Your task to perform on an android device: turn off improve location accuracy Image 0: 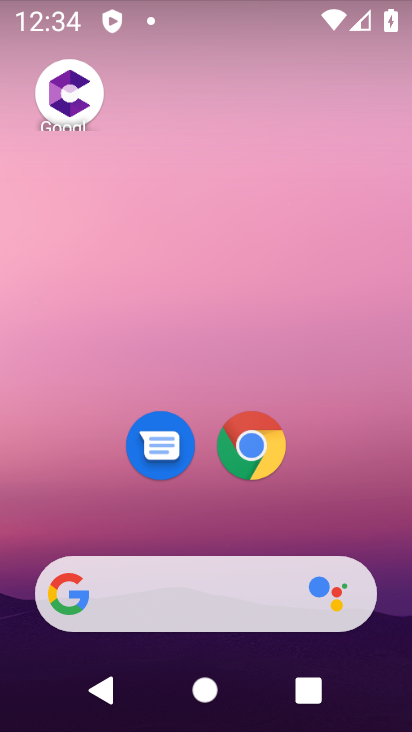
Step 0: drag from (396, 604) to (364, 215)
Your task to perform on an android device: turn off improve location accuracy Image 1: 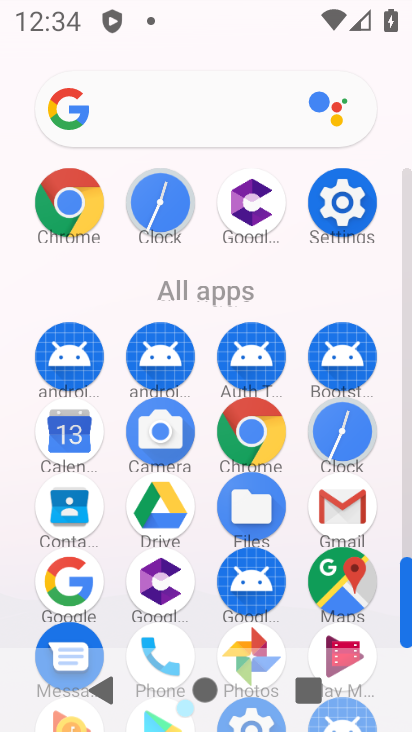
Step 1: click (407, 537)
Your task to perform on an android device: turn off improve location accuracy Image 2: 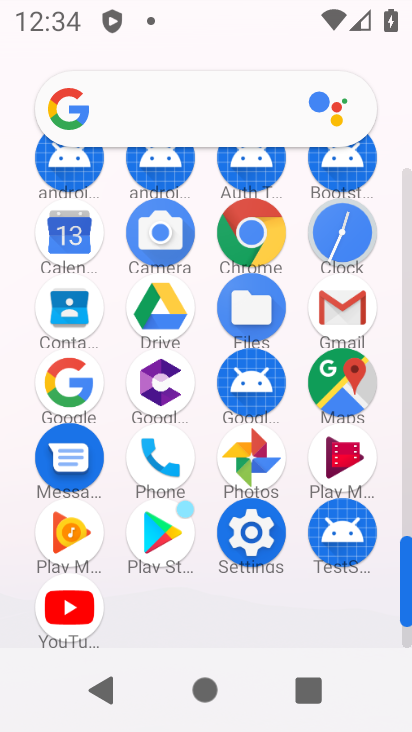
Step 2: click (249, 530)
Your task to perform on an android device: turn off improve location accuracy Image 3: 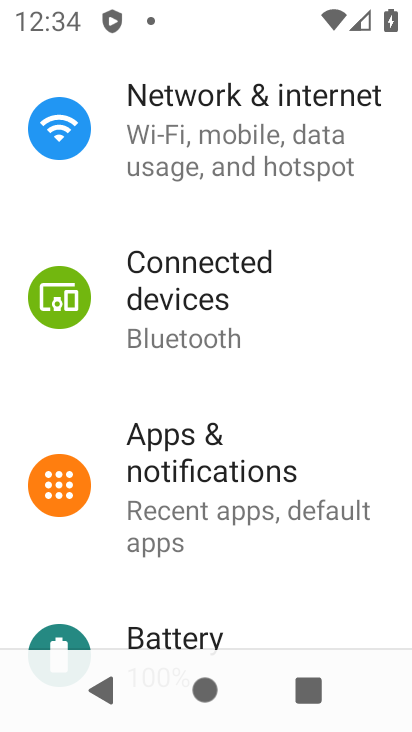
Step 3: drag from (365, 572) to (351, 434)
Your task to perform on an android device: turn off improve location accuracy Image 4: 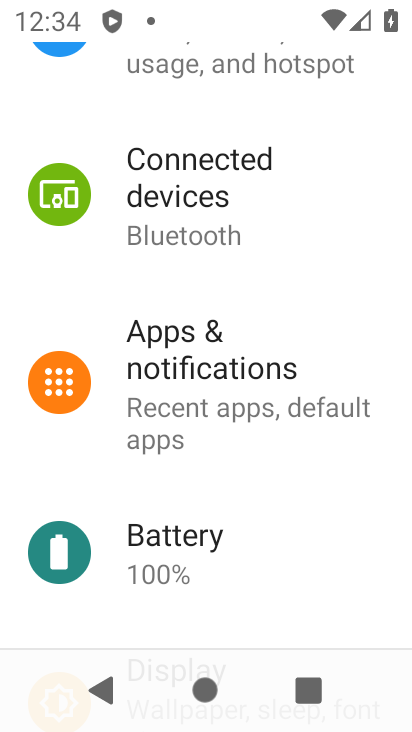
Step 4: drag from (305, 524) to (350, 137)
Your task to perform on an android device: turn off improve location accuracy Image 5: 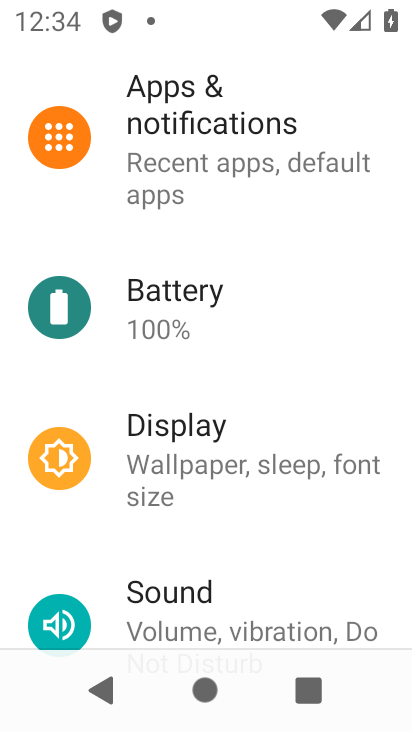
Step 5: drag from (356, 541) to (370, 119)
Your task to perform on an android device: turn off improve location accuracy Image 6: 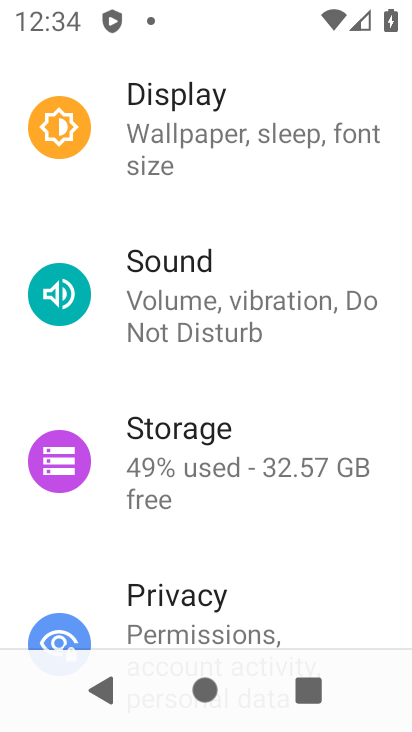
Step 6: drag from (360, 569) to (343, 118)
Your task to perform on an android device: turn off improve location accuracy Image 7: 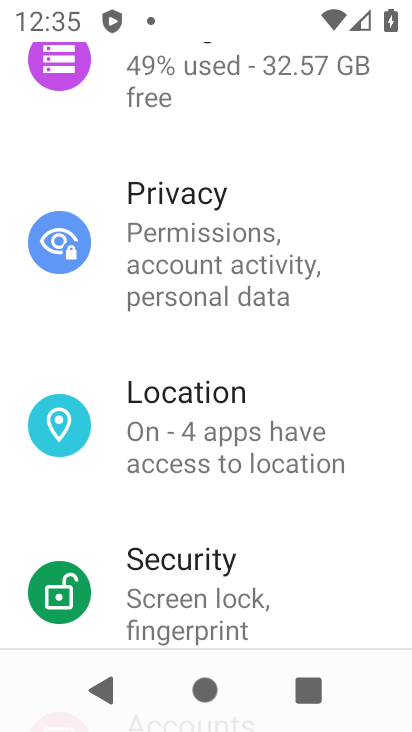
Step 7: click (162, 418)
Your task to perform on an android device: turn off improve location accuracy Image 8: 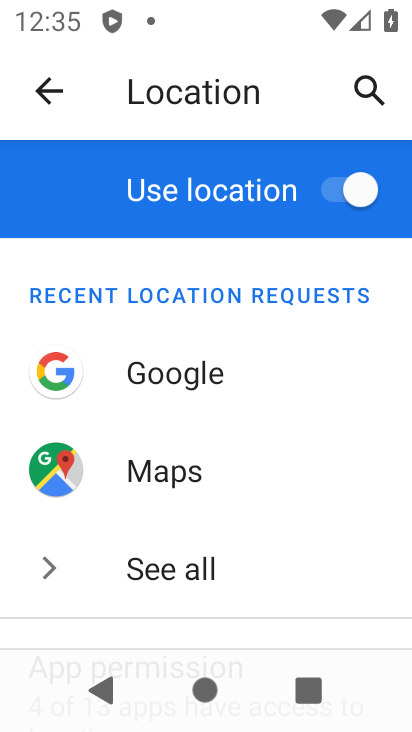
Step 8: drag from (226, 632) to (228, 229)
Your task to perform on an android device: turn off improve location accuracy Image 9: 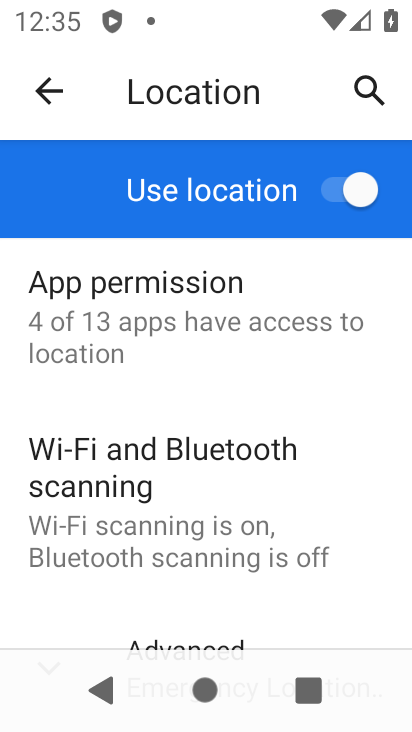
Step 9: drag from (232, 612) to (255, 275)
Your task to perform on an android device: turn off improve location accuracy Image 10: 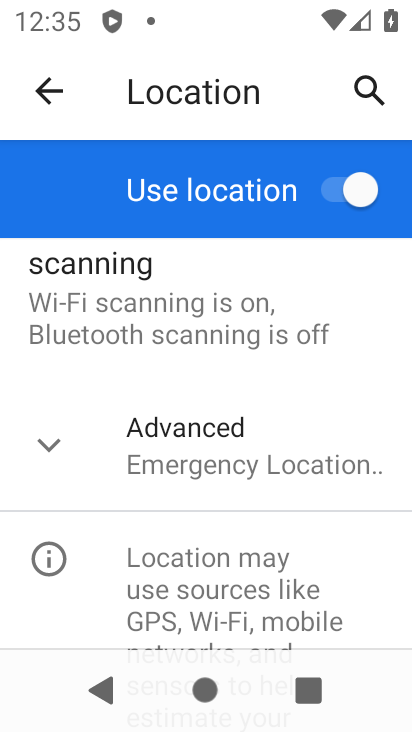
Step 10: click (42, 453)
Your task to perform on an android device: turn off improve location accuracy Image 11: 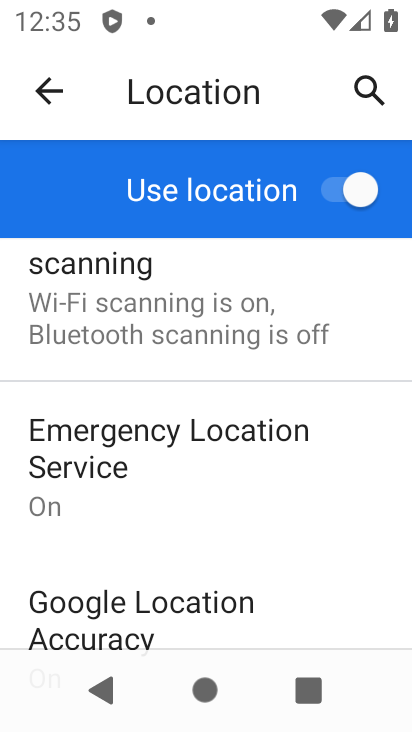
Step 11: click (173, 597)
Your task to perform on an android device: turn off improve location accuracy Image 12: 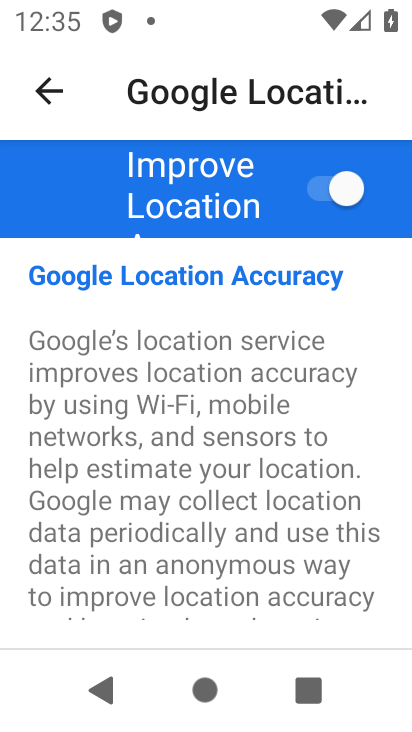
Step 12: drag from (173, 597) to (225, 319)
Your task to perform on an android device: turn off improve location accuracy Image 13: 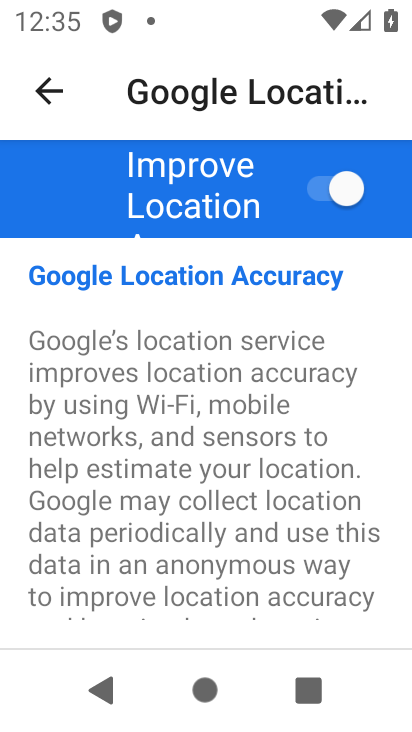
Step 13: click (309, 180)
Your task to perform on an android device: turn off improve location accuracy Image 14: 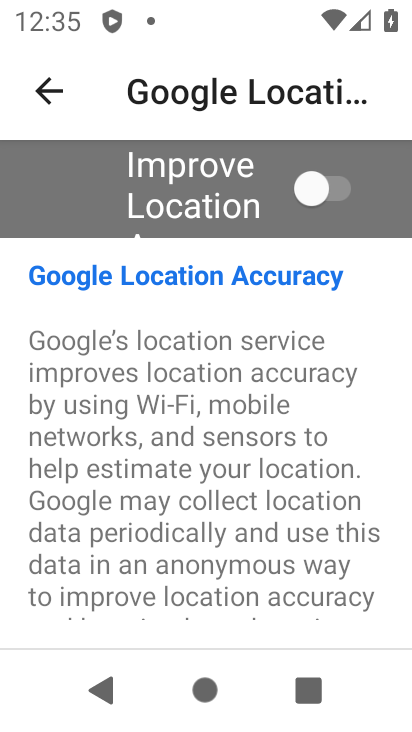
Step 14: task complete